Your task to perform on an android device: empty trash in google photos Image 0: 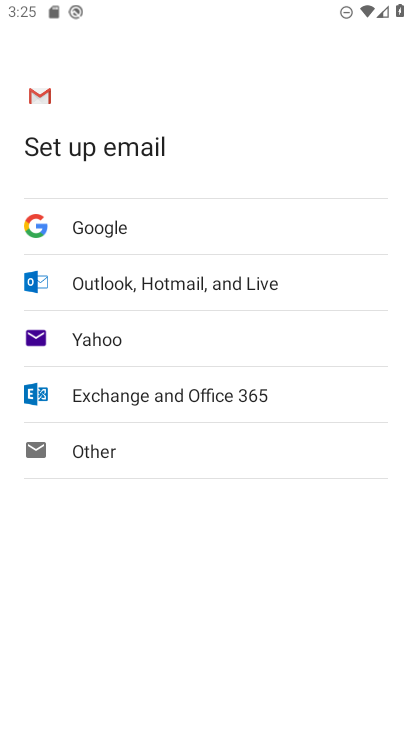
Step 0: press home button
Your task to perform on an android device: empty trash in google photos Image 1: 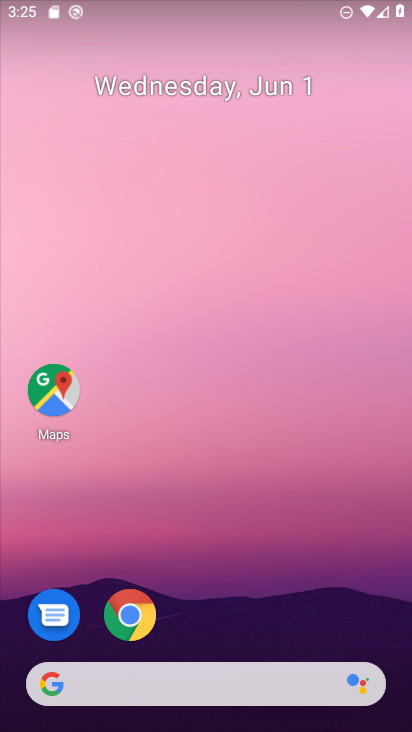
Step 1: drag from (227, 641) to (271, 248)
Your task to perform on an android device: empty trash in google photos Image 2: 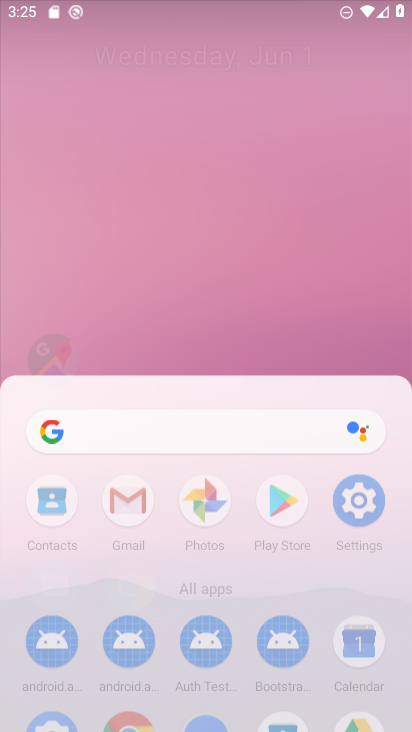
Step 2: click (283, 171)
Your task to perform on an android device: empty trash in google photos Image 3: 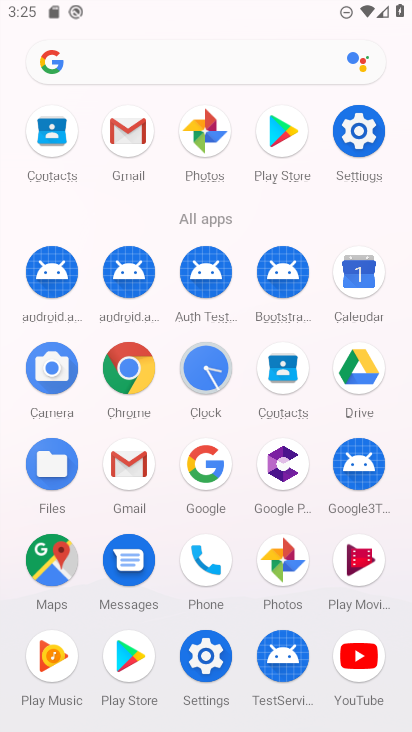
Step 3: click (281, 553)
Your task to perform on an android device: empty trash in google photos Image 4: 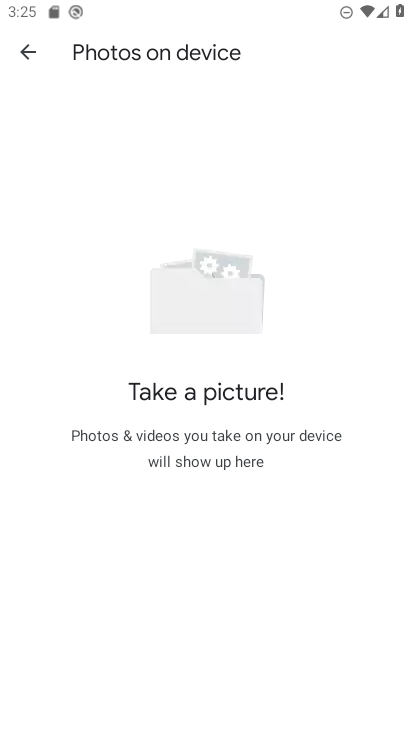
Step 4: click (26, 39)
Your task to perform on an android device: empty trash in google photos Image 5: 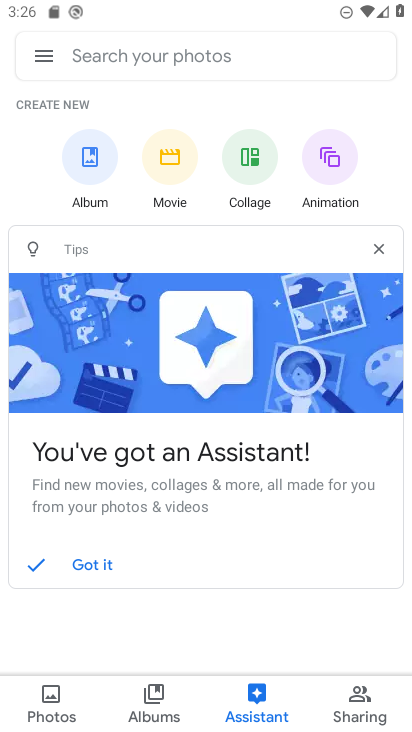
Step 5: click (34, 59)
Your task to perform on an android device: empty trash in google photos Image 6: 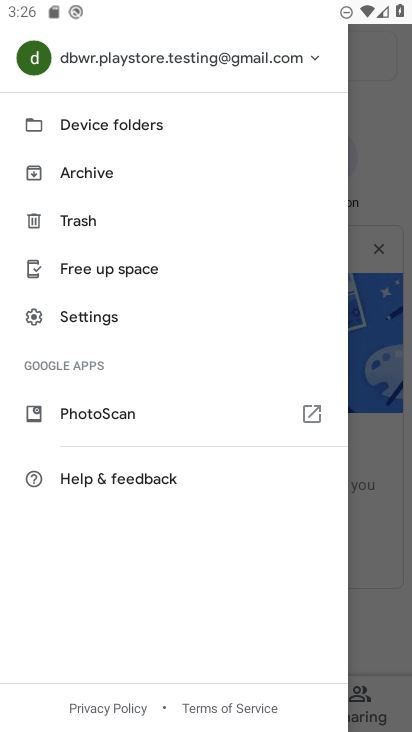
Step 6: click (103, 213)
Your task to perform on an android device: empty trash in google photos Image 7: 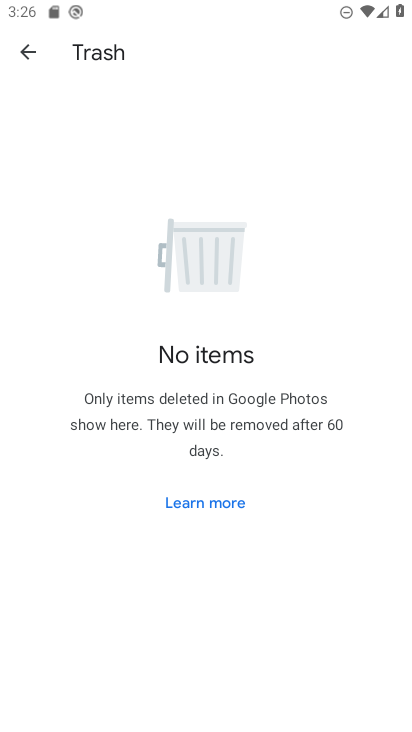
Step 7: task complete